Your task to perform on an android device: turn off location history Image 0: 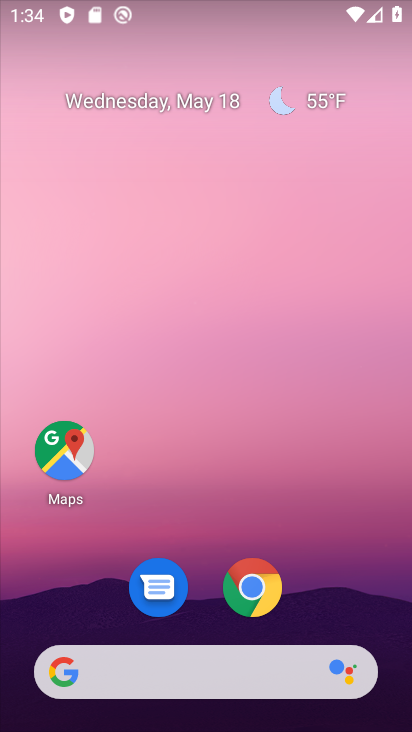
Step 0: drag from (160, 623) to (250, 66)
Your task to perform on an android device: turn off location history Image 1: 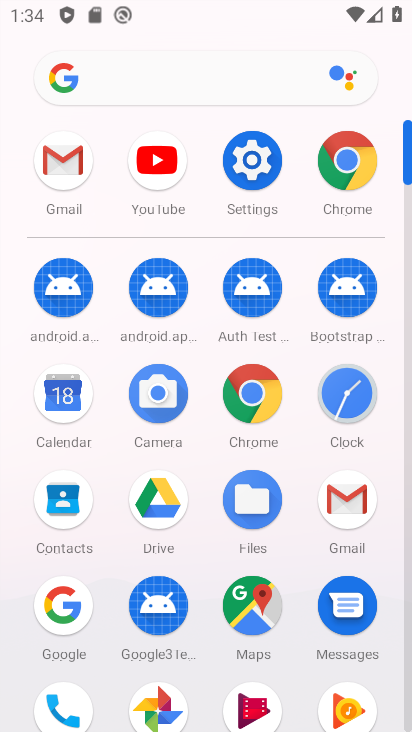
Step 1: click (263, 151)
Your task to perform on an android device: turn off location history Image 2: 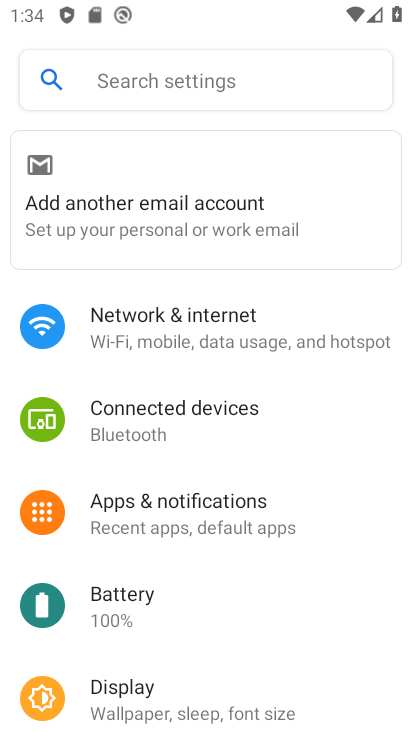
Step 2: drag from (189, 633) to (283, 68)
Your task to perform on an android device: turn off location history Image 3: 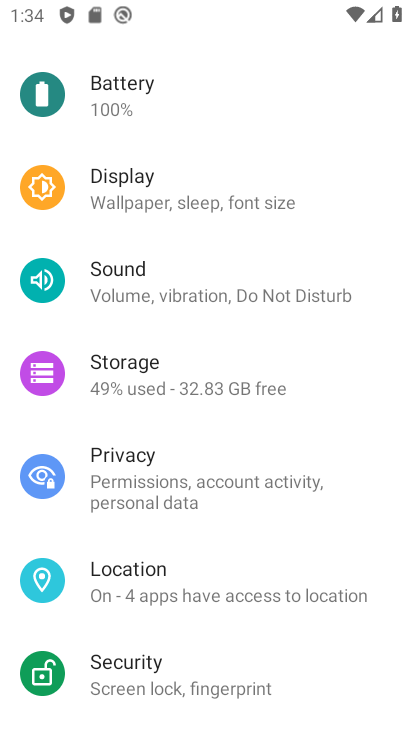
Step 3: click (125, 579)
Your task to perform on an android device: turn off location history Image 4: 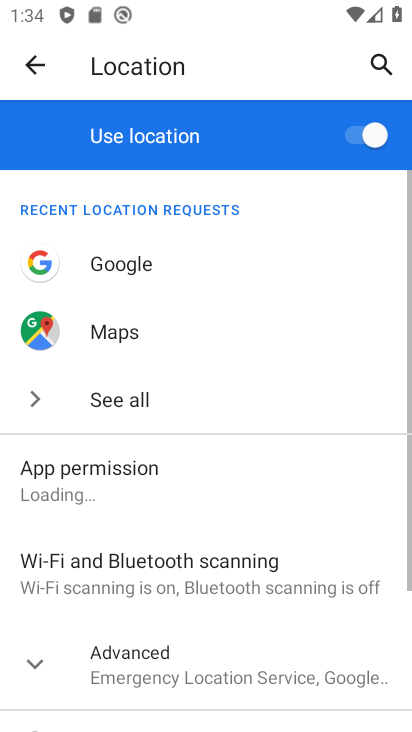
Step 4: drag from (133, 576) to (230, 166)
Your task to perform on an android device: turn off location history Image 5: 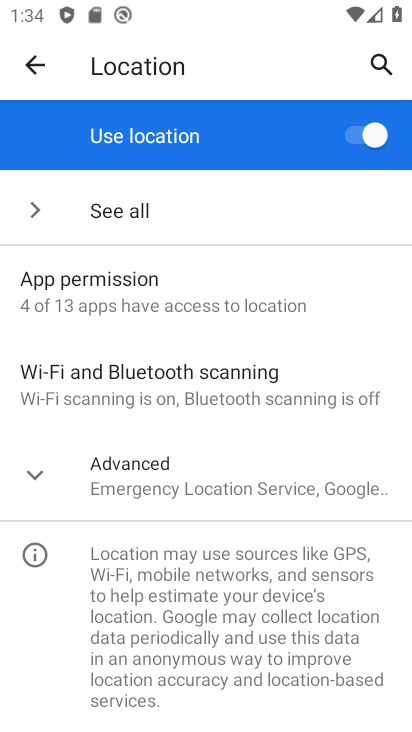
Step 5: click (164, 466)
Your task to perform on an android device: turn off location history Image 6: 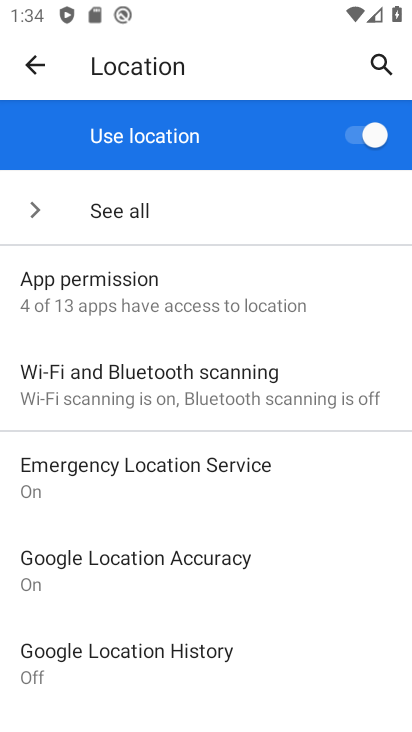
Step 6: click (78, 647)
Your task to perform on an android device: turn off location history Image 7: 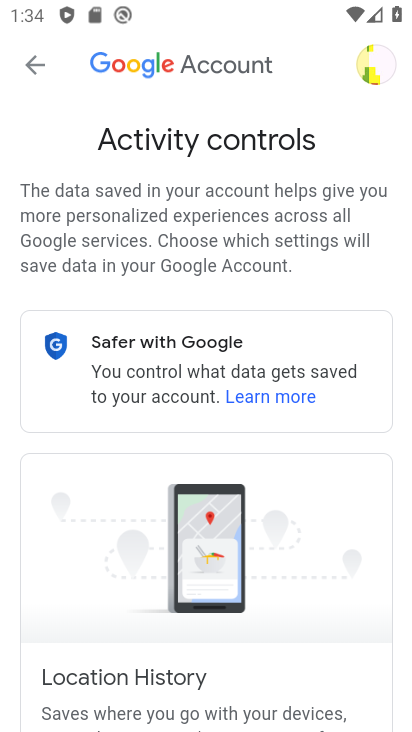
Step 7: drag from (188, 651) to (262, 125)
Your task to perform on an android device: turn off location history Image 8: 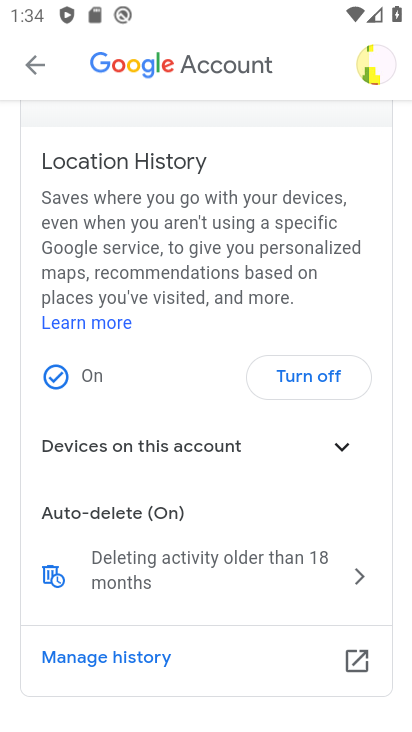
Step 8: click (287, 380)
Your task to perform on an android device: turn off location history Image 9: 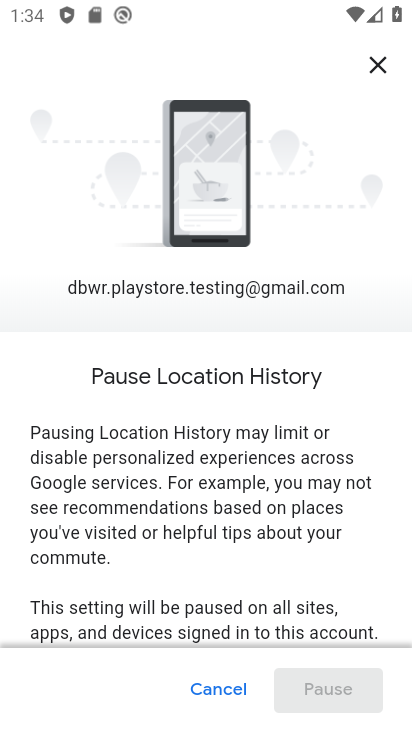
Step 9: drag from (232, 632) to (351, 25)
Your task to perform on an android device: turn off location history Image 10: 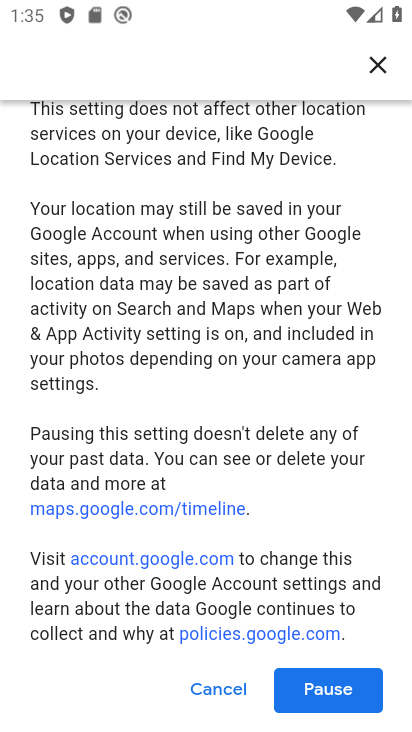
Step 10: drag from (215, 571) to (269, 207)
Your task to perform on an android device: turn off location history Image 11: 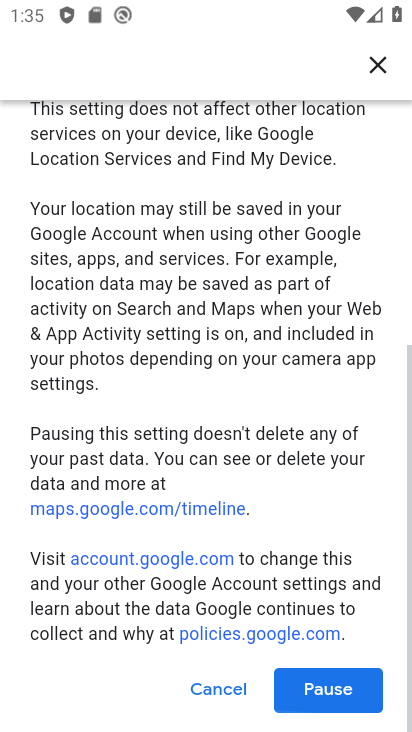
Step 11: click (343, 689)
Your task to perform on an android device: turn off location history Image 12: 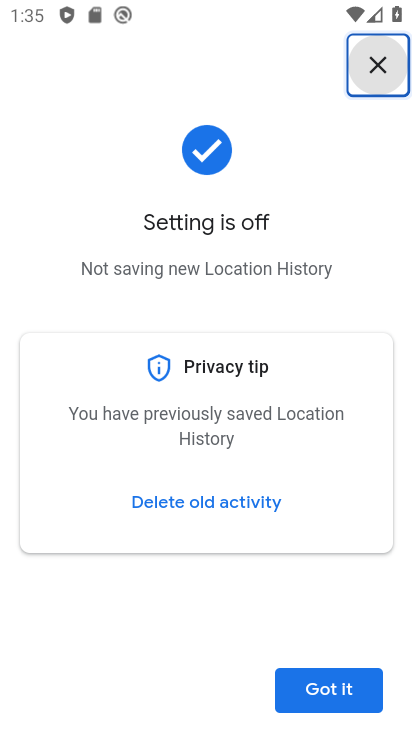
Step 12: task complete